Your task to perform on an android device: turn on the 24-hour format for clock Image 0: 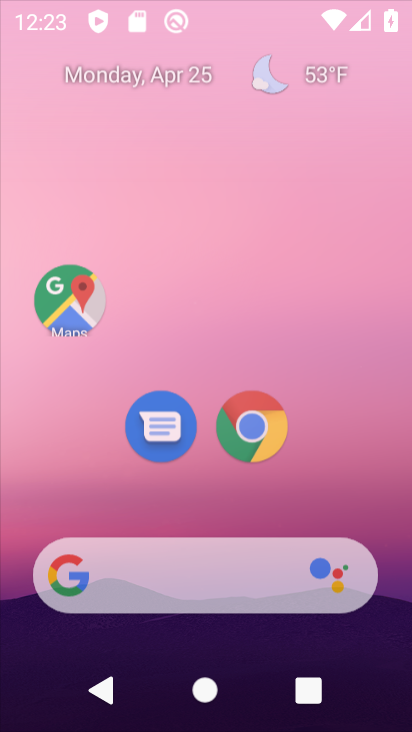
Step 0: click (232, 448)
Your task to perform on an android device: turn on the 24-hour format for clock Image 1: 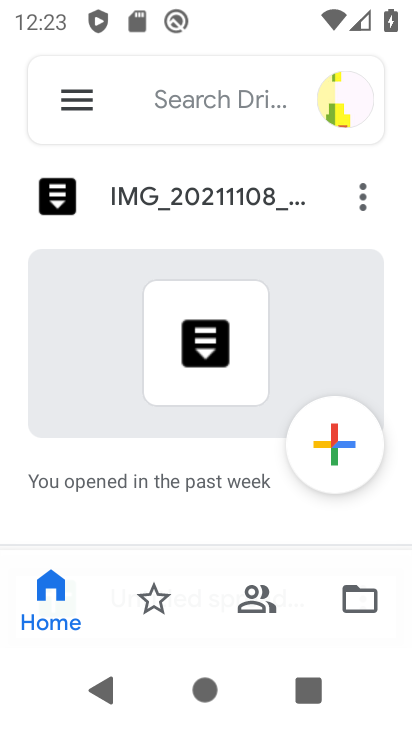
Step 1: press home button
Your task to perform on an android device: turn on the 24-hour format for clock Image 2: 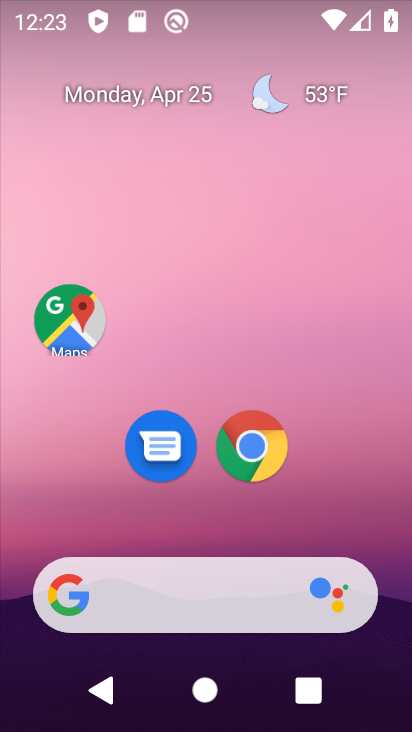
Step 2: drag from (228, 475) to (253, 5)
Your task to perform on an android device: turn on the 24-hour format for clock Image 3: 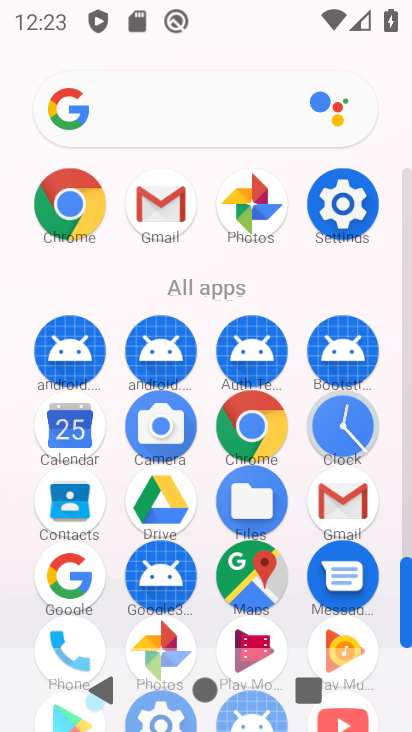
Step 3: click (350, 210)
Your task to perform on an android device: turn on the 24-hour format for clock Image 4: 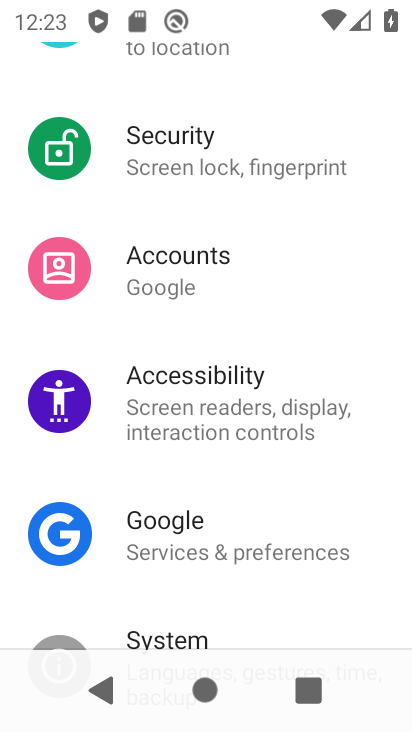
Step 4: drag from (233, 537) to (313, 126)
Your task to perform on an android device: turn on the 24-hour format for clock Image 5: 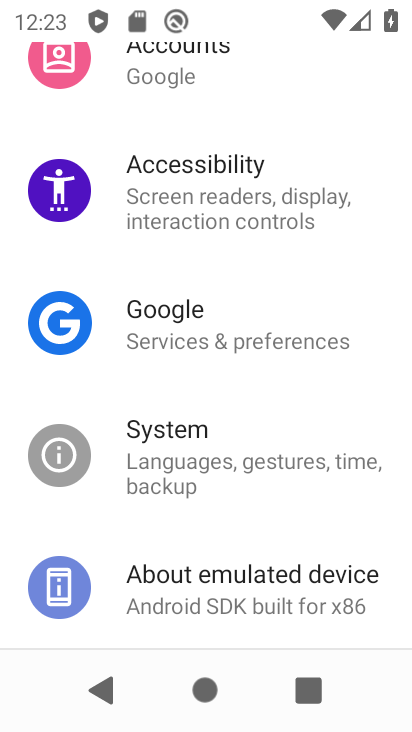
Step 5: click (201, 467)
Your task to perform on an android device: turn on the 24-hour format for clock Image 6: 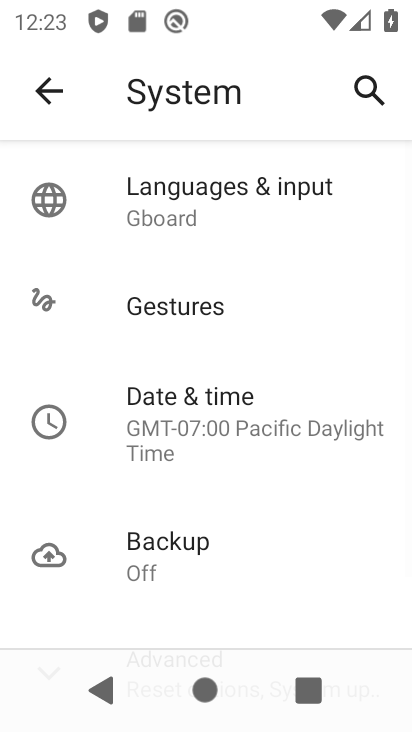
Step 6: drag from (180, 493) to (258, 167)
Your task to perform on an android device: turn on the 24-hour format for clock Image 7: 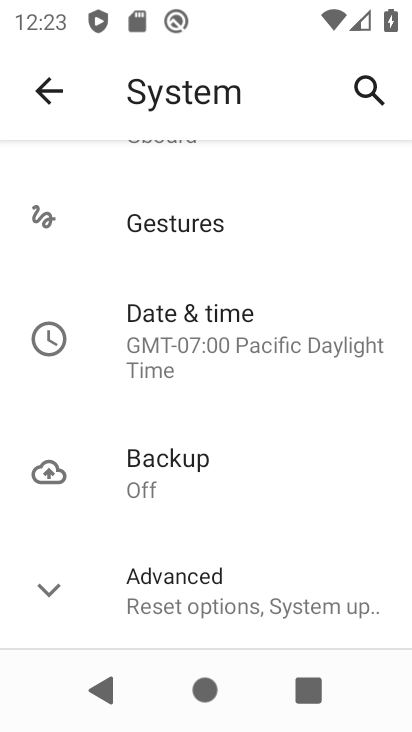
Step 7: click (184, 334)
Your task to perform on an android device: turn on the 24-hour format for clock Image 8: 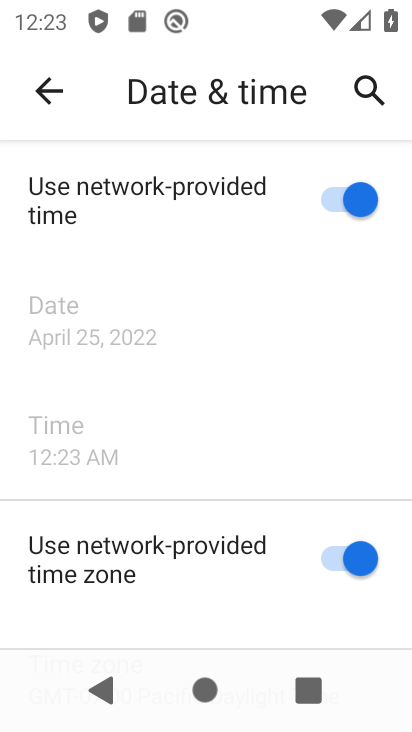
Step 8: drag from (187, 504) to (254, 224)
Your task to perform on an android device: turn on the 24-hour format for clock Image 9: 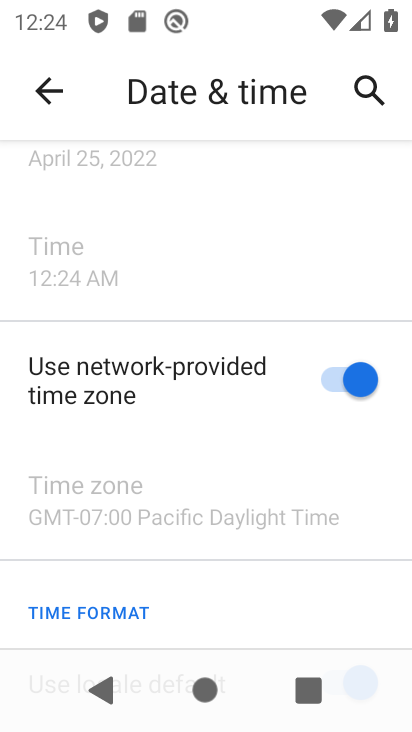
Step 9: drag from (237, 503) to (340, 63)
Your task to perform on an android device: turn on the 24-hour format for clock Image 10: 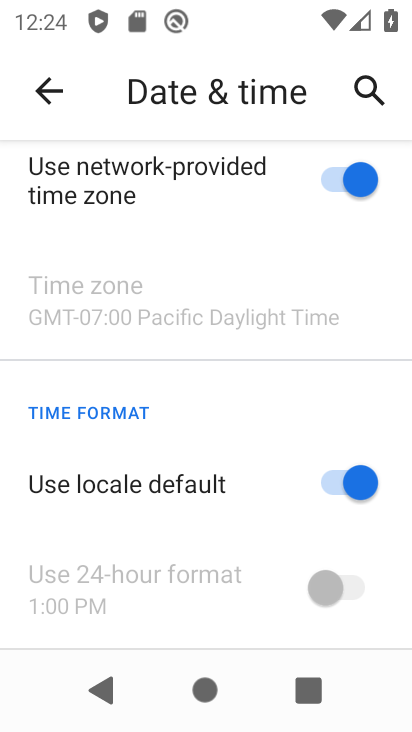
Step 10: click (337, 477)
Your task to perform on an android device: turn on the 24-hour format for clock Image 11: 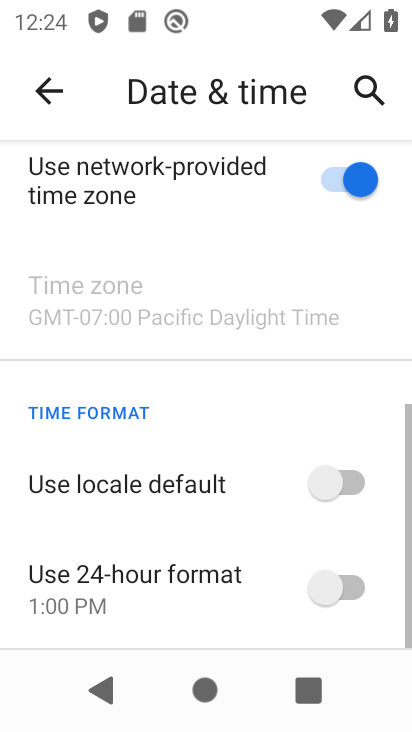
Step 11: click (357, 586)
Your task to perform on an android device: turn on the 24-hour format for clock Image 12: 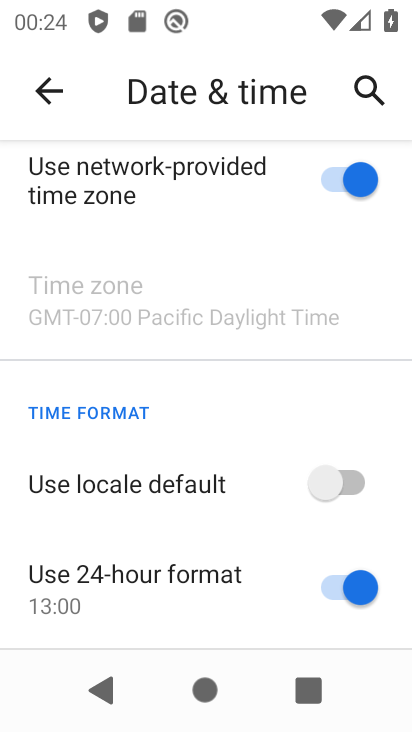
Step 12: task complete